Your task to perform on an android device: Clear the cart on ebay. Search for "logitech g910" on ebay, select the first entry, and add it to the cart. Image 0: 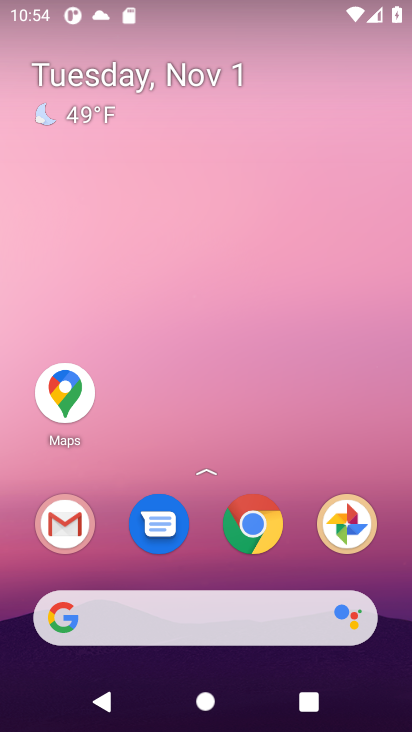
Step 0: press home button
Your task to perform on an android device: Clear the cart on ebay. Search for "logitech g910" on ebay, select the first entry, and add it to the cart. Image 1: 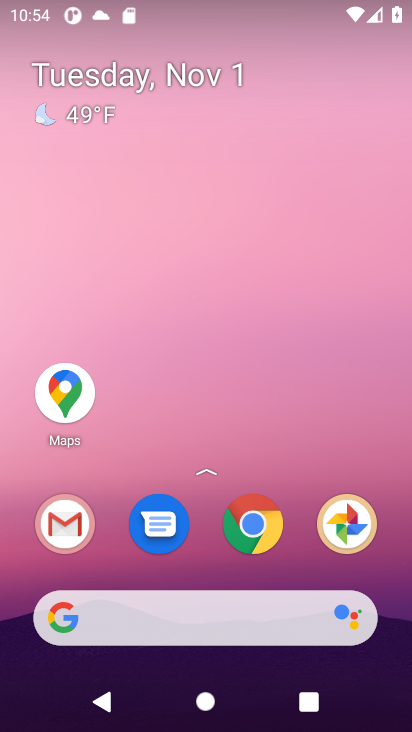
Step 1: click (92, 613)
Your task to perform on an android device: Clear the cart on ebay. Search for "logitech g910" on ebay, select the first entry, and add it to the cart. Image 2: 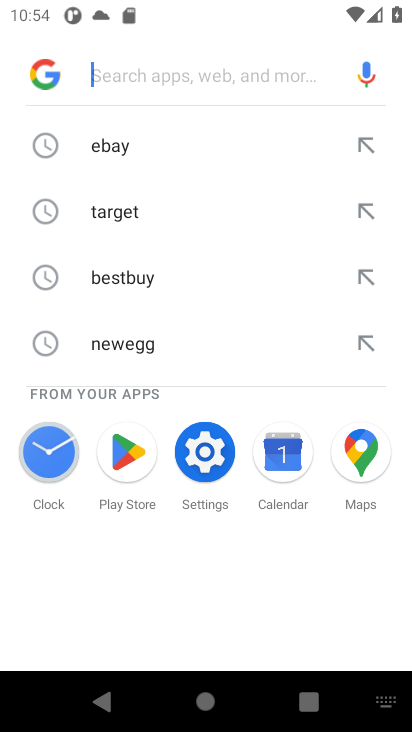
Step 2: type "ebay"
Your task to perform on an android device: Clear the cart on ebay. Search for "logitech g910" on ebay, select the first entry, and add it to the cart. Image 3: 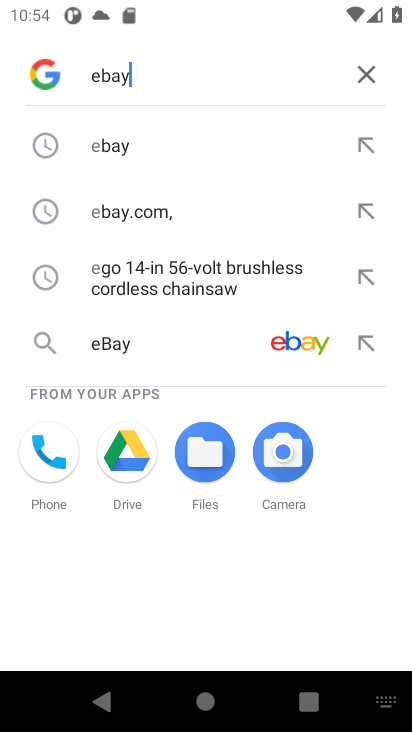
Step 3: press enter
Your task to perform on an android device: Clear the cart on ebay. Search for "logitech g910" on ebay, select the first entry, and add it to the cart. Image 4: 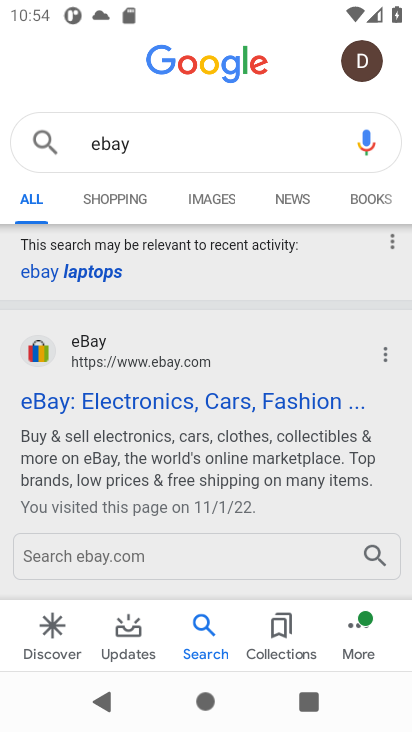
Step 4: click (137, 404)
Your task to perform on an android device: Clear the cart on ebay. Search for "logitech g910" on ebay, select the first entry, and add it to the cart. Image 5: 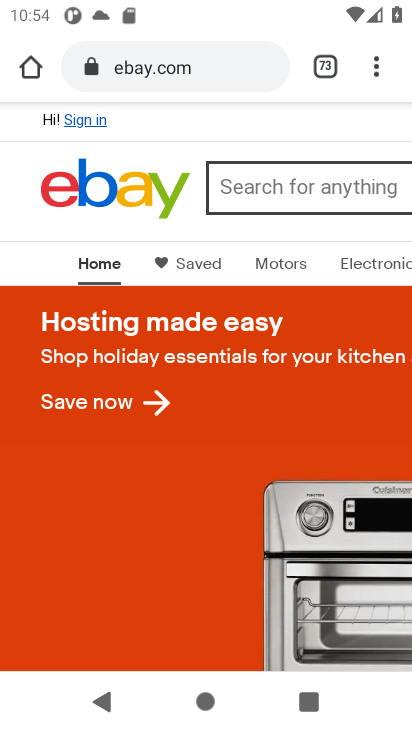
Step 5: drag from (336, 224) to (27, 218)
Your task to perform on an android device: Clear the cart on ebay. Search for "logitech g910" on ebay, select the first entry, and add it to the cart. Image 6: 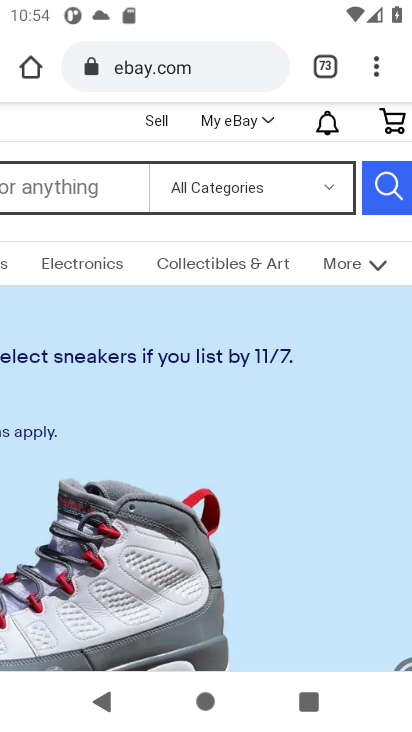
Step 6: drag from (322, 223) to (30, 222)
Your task to perform on an android device: Clear the cart on ebay. Search for "logitech g910" on ebay, select the first entry, and add it to the cart. Image 7: 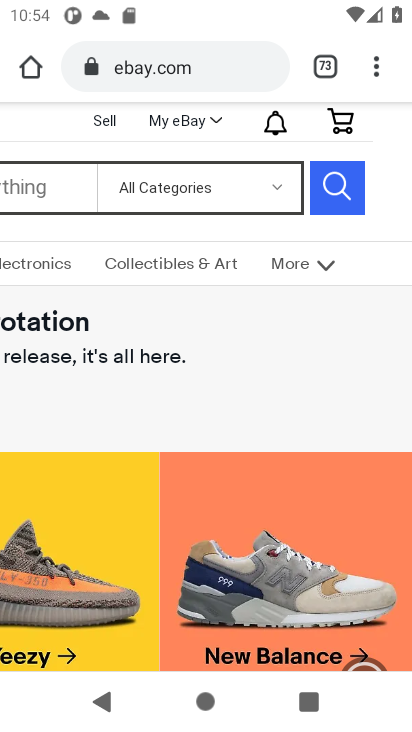
Step 7: click (343, 120)
Your task to perform on an android device: Clear the cart on ebay. Search for "logitech g910" on ebay, select the first entry, and add it to the cart. Image 8: 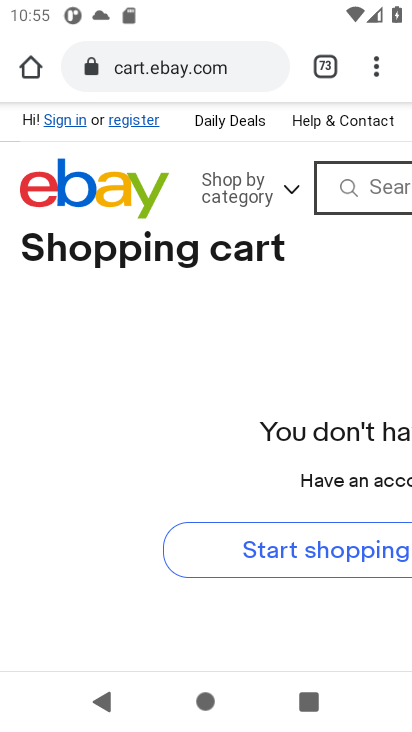
Step 8: drag from (273, 458) to (278, 330)
Your task to perform on an android device: Clear the cart on ebay. Search for "logitech g910" on ebay, select the first entry, and add it to the cart. Image 9: 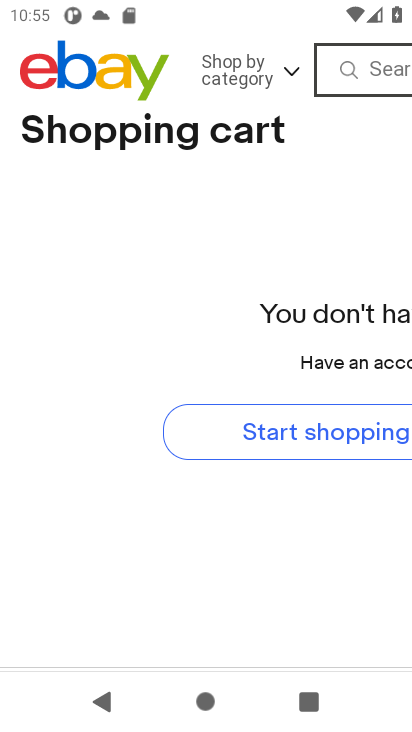
Step 9: drag from (299, 212) to (257, 514)
Your task to perform on an android device: Clear the cart on ebay. Search for "logitech g910" on ebay, select the first entry, and add it to the cart. Image 10: 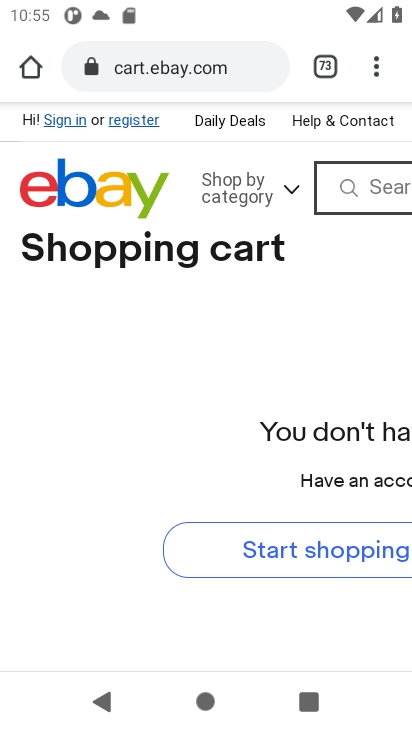
Step 10: click (361, 184)
Your task to perform on an android device: Clear the cart on ebay. Search for "logitech g910" on ebay, select the first entry, and add it to the cart. Image 11: 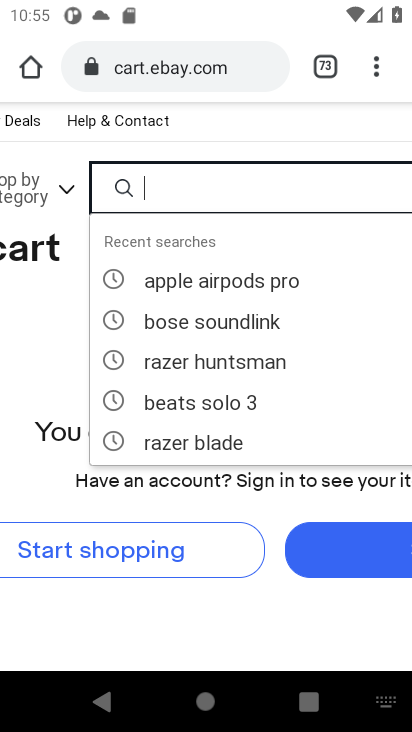
Step 11: type "logitech g910"
Your task to perform on an android device: Clear the cart on ebay. Search for "logitech g910" on ebay, select the first entry, and add it to the cart. Image 12: 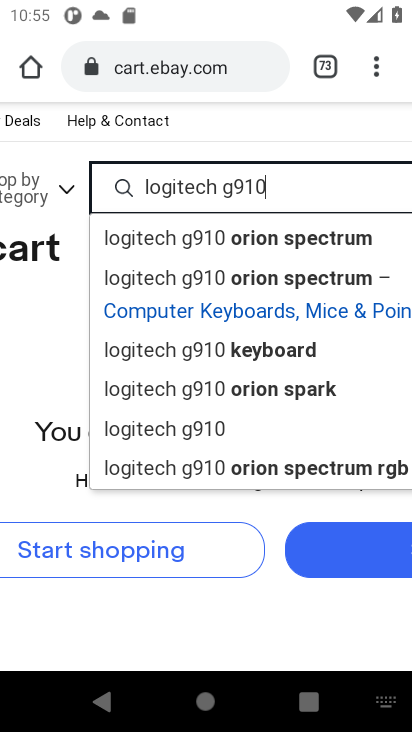
Step 12: press enter
Your task to perform on an android device: Clear the cart on ebay. Search for "logitech g910" on ebay, select the first entry, and add it to the cart. Image 13: 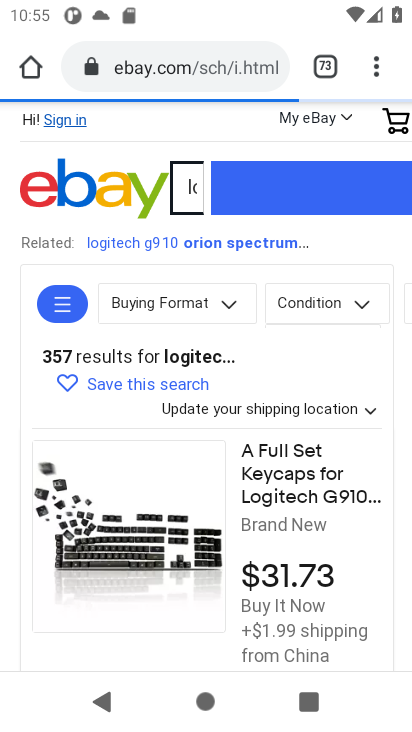
Step 13: task complete